Your task to perform on an android device: empty trash in google photos Image 0: 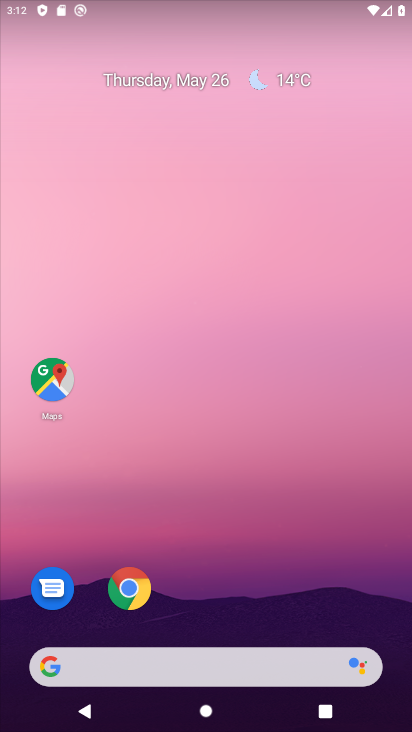
Step 0: drag from (326, 609) to (270, 110)
Your task to perform on an android device: empty trash in google photos Image 1: 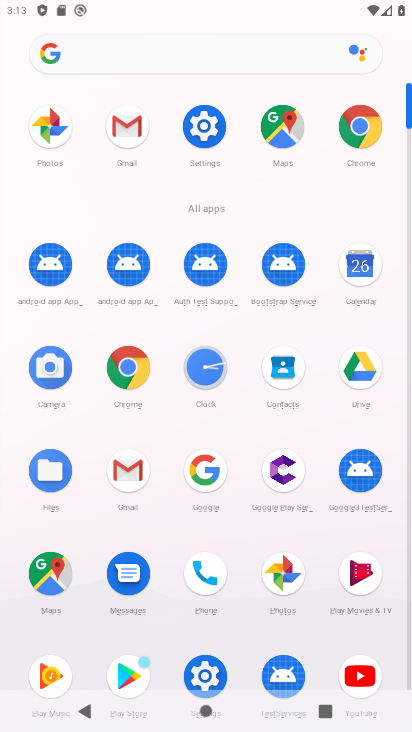
Step 1: click (278, 561)
Your task to perform on an android device: empty trash in google photos Image 2: 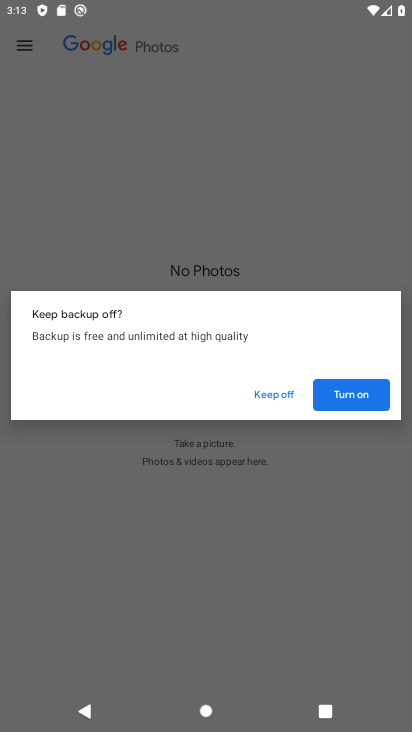
Step 2: click (363, 402)
Your task to perform on an android device: empty trash in google photos Image 3: 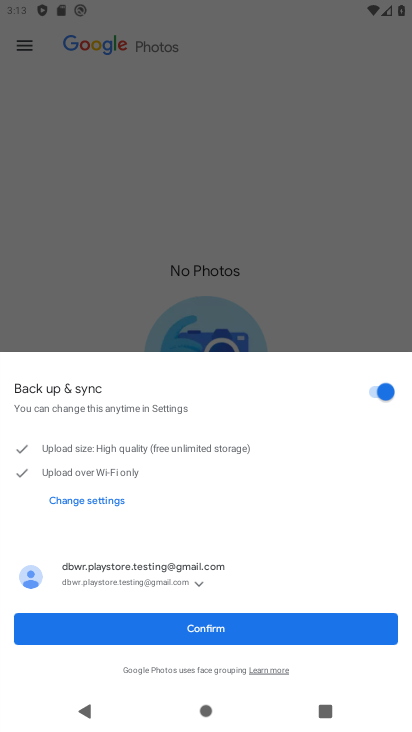
Step 3: click (113, 618)
Your task to perform on an android device: empty trash in google photos Image 4: 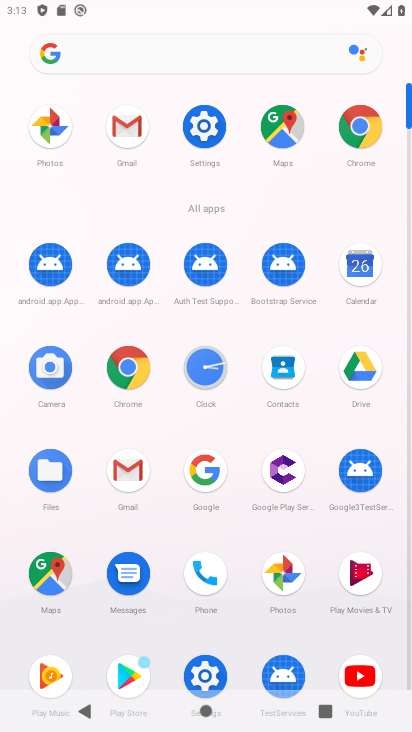
Step 4: click (293, 565)
Your task to perform on an android device: empty trash in google photos Image 5: 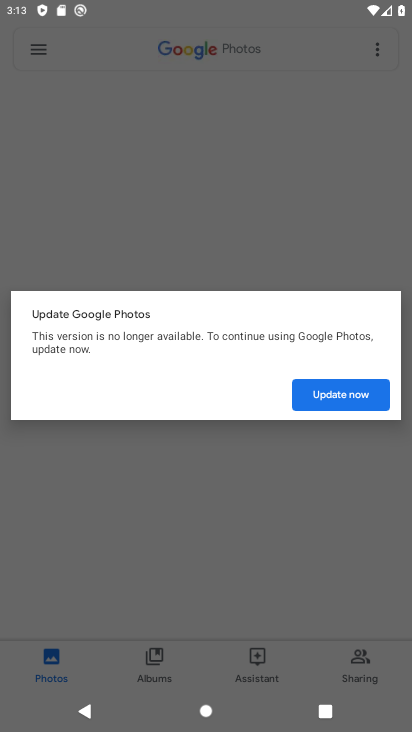
Step 5: click (320, 385)
Your task to perform on an android device: empty trash in google photos Image 6: 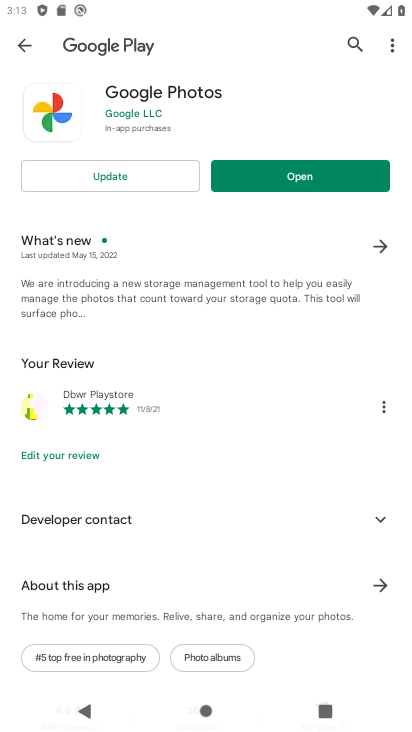
Step 6: click (150, 166)
Your task to perform on an android device: empty trash in google photos Image 7: 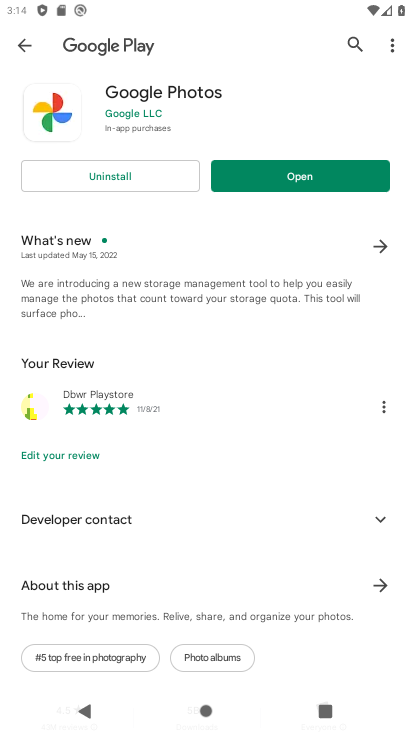
Step 7: click (302, 176)
Your task to perform on an android device: empty trash in google photos Image 8: 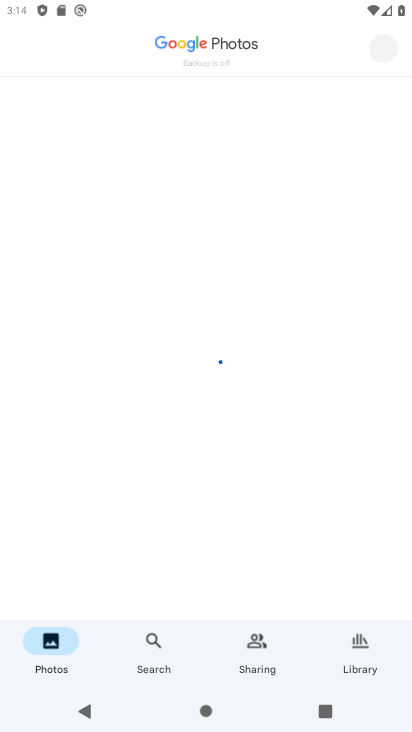
Step 8: click (350, 663)
Your task to perform on an android device: empty trash in google photos Image 9: 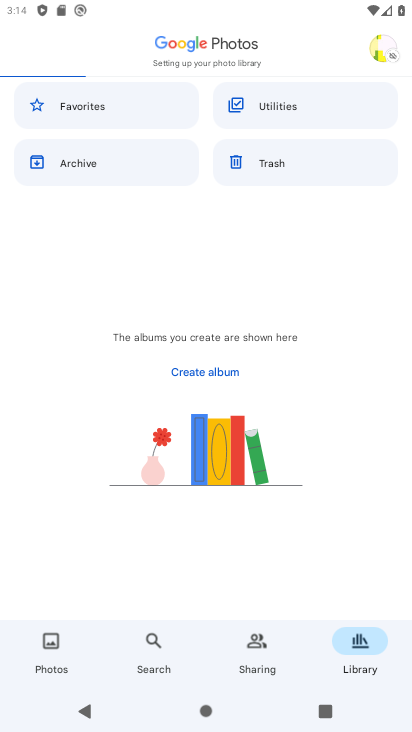
Step 9: click (249, 159)
Your task to perform on an android device: empty trash in google photos Image 10: 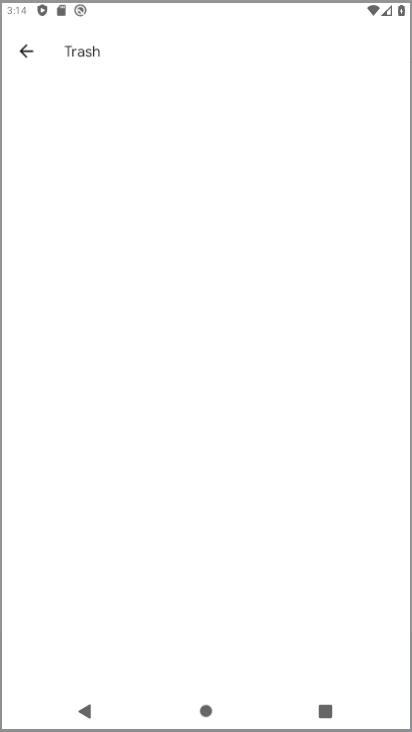
Step 10: task complete